Your task to perform on an android device: turn off javascript in the chrome app Image 0: 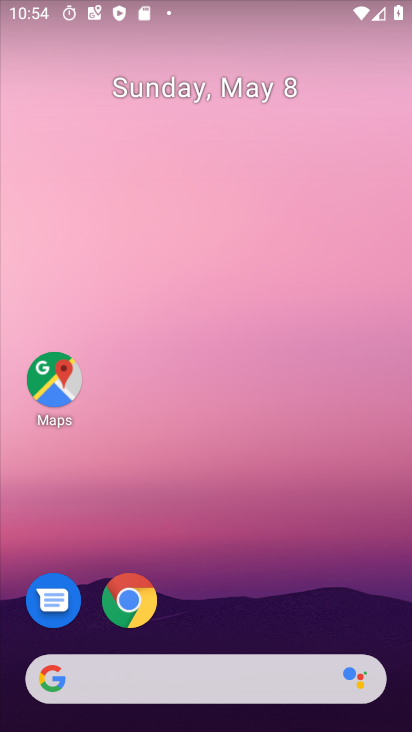
Step 0: click (134, 598)
Your task to perform on an android device: turn off javascript in the chrome app Image 1: 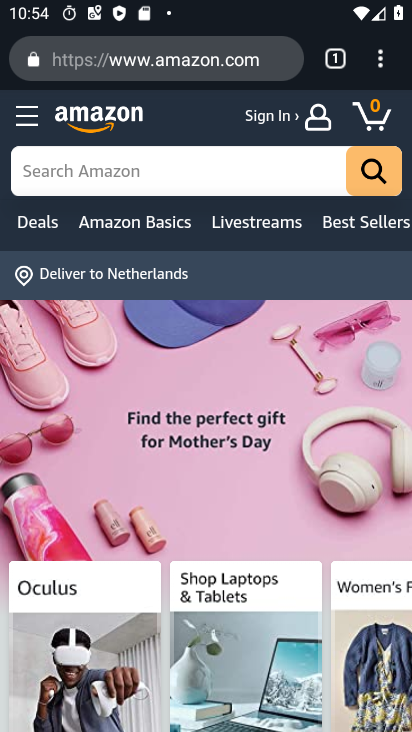
Step 1: click (380, 60)
Your task to perform on an android device: turn off javascript in the chrome app Image 2: 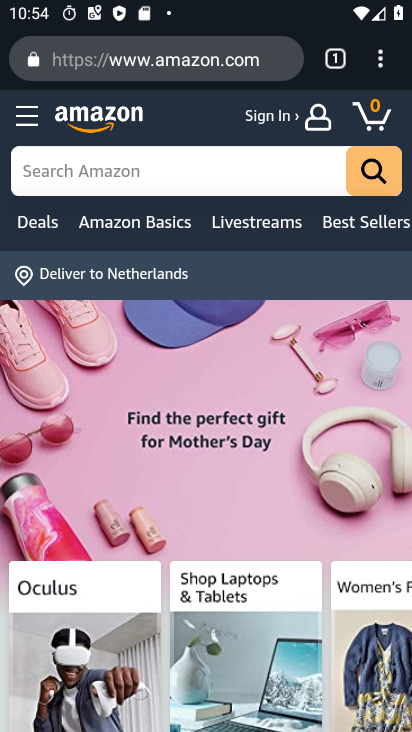
Step 2: click (376, 57)
Your task to perform on an android device: turn off javascript in the chrome app Image 3: 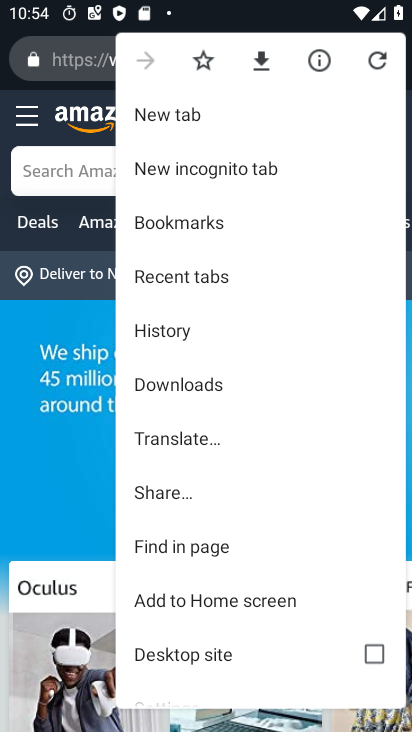
Step 3: drag from (222, 653) to (294, 205)
Your task to perform on an android device: turn off javascript in the chrome app Image 4: 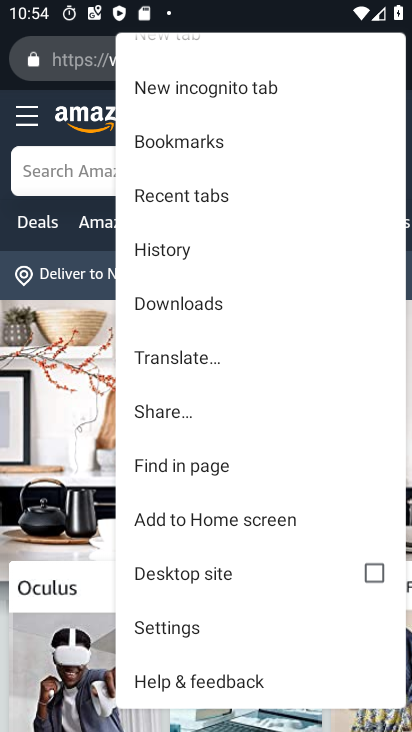
Step 4: click (206, 625)
Your task to perform on an android device: turn off javascript in the chrome app Image 5: 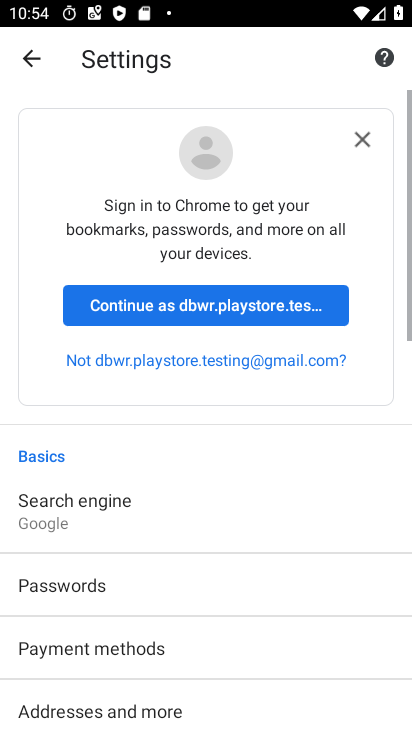
Step 5: drag from (165, 669) to (281, 191)
Your task to perform on an android device: turn off javascript in the chrome app Image 6: 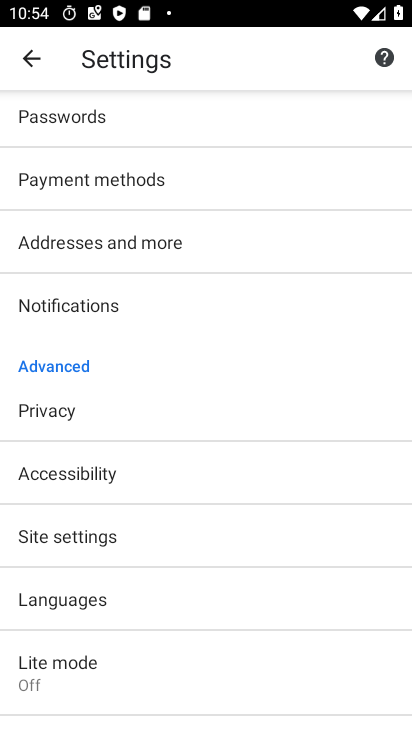
Step 6: click (197, 535)
Your task to perform on an android device: turn off javascript in the chrome app Image 7: 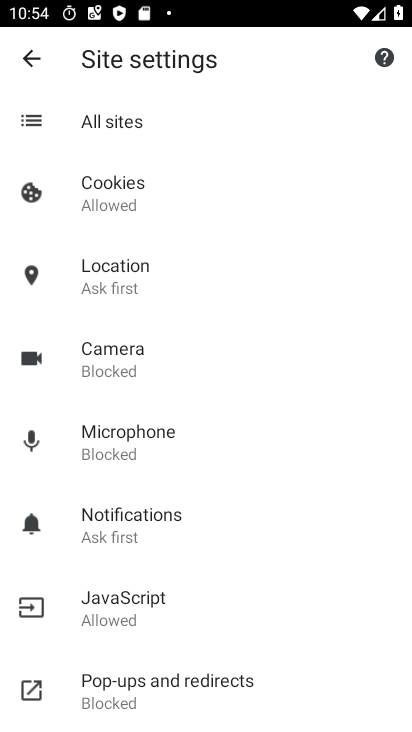
Step 7: click (147, 601)
Your task to perform on an android device: turn off javascript in the chrome app Image 8: 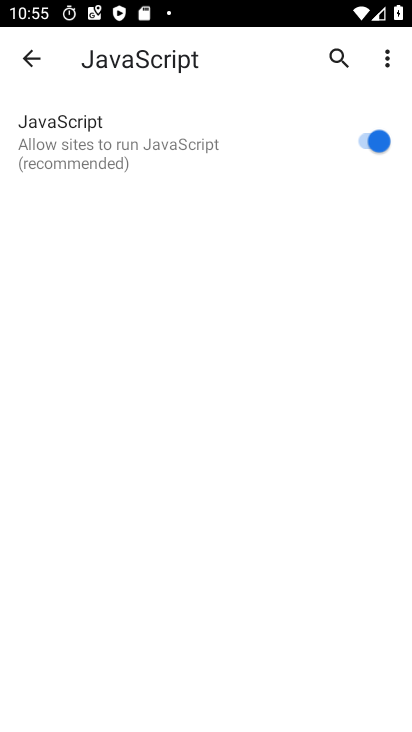
Step 8: click (384, 141)
Your task to perform on an android device: turn off javascript in the chrome app Image 9: 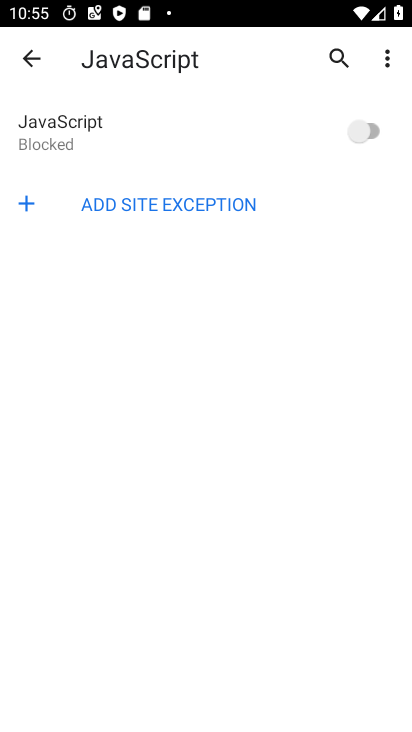
Step 9: task complete